Your task to perform on an android device: Go to location settings Image 0: 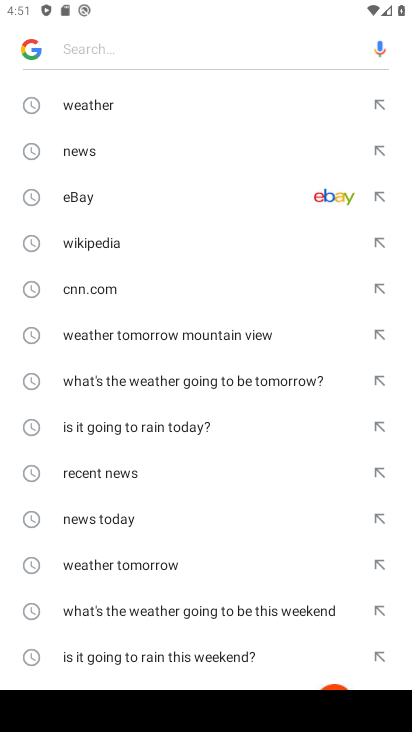
Step 0: press back button
Your task to perform on an android device: Go to location settings Image 1: 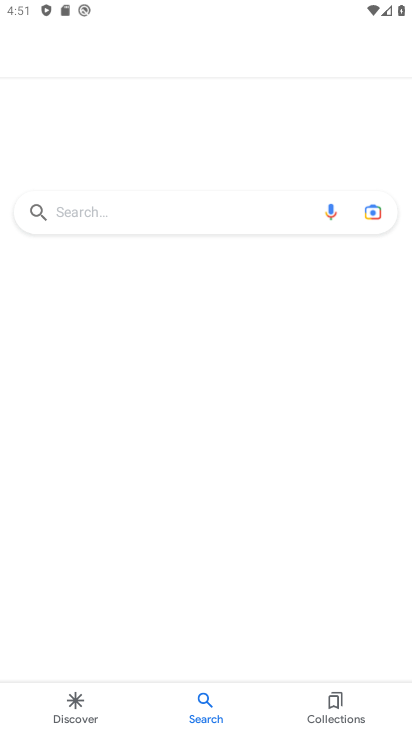
Step 1: press back button
Your task to perform on an android device: Go to location settings Image 2: 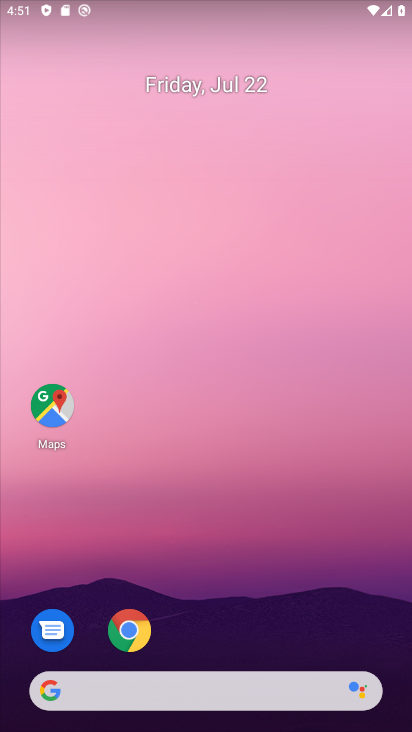
Step 2: drag from (189, 423) to (185, 77)
Your task to perform on an android device: Go to location settings Image 3: 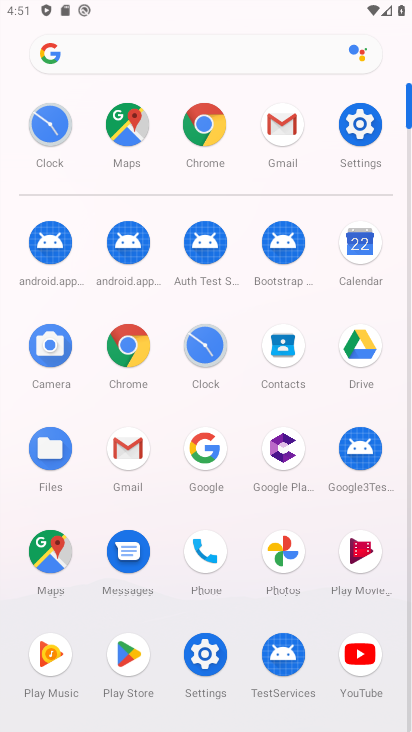
Step 3: click (192, 659)
Your task to perform on an android device: Go to location settings Image 4: 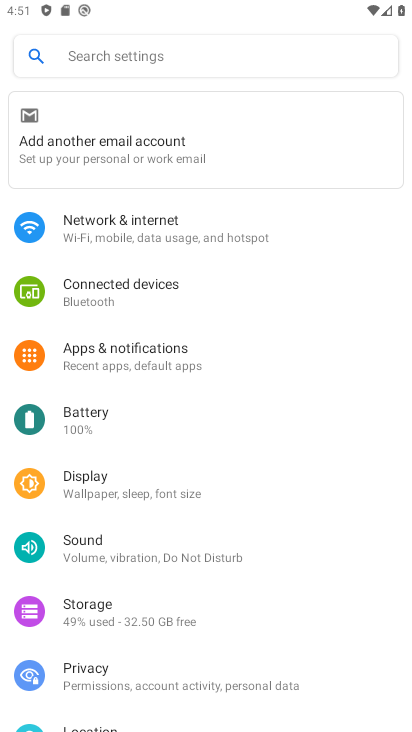
Step 4: drag from (114, 646) to (142, 372)
Your task to perform on an android device: Go to location settings Image 5: 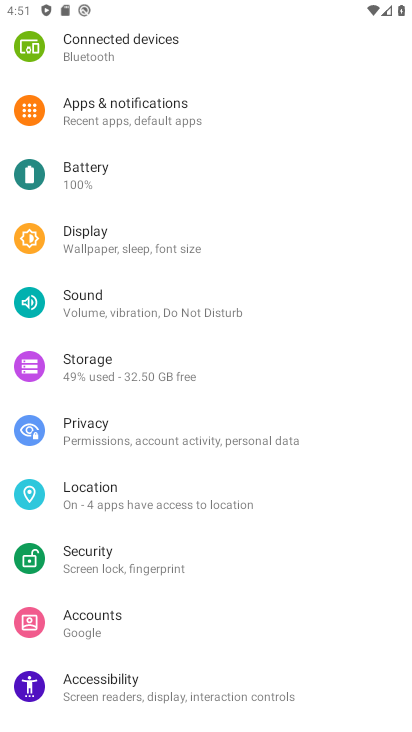
Step 5: click (83, 492)
Your task to perform on an android device: Go to location settings Image 6: 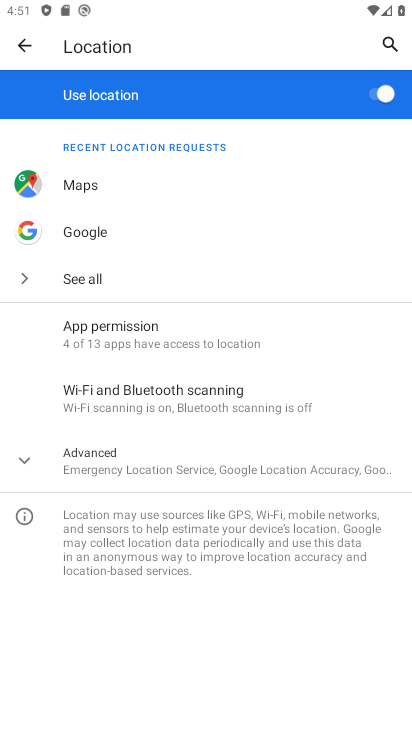
Step 6: task complete